Your task to perform on an android device: toggle notification dots Image 0: 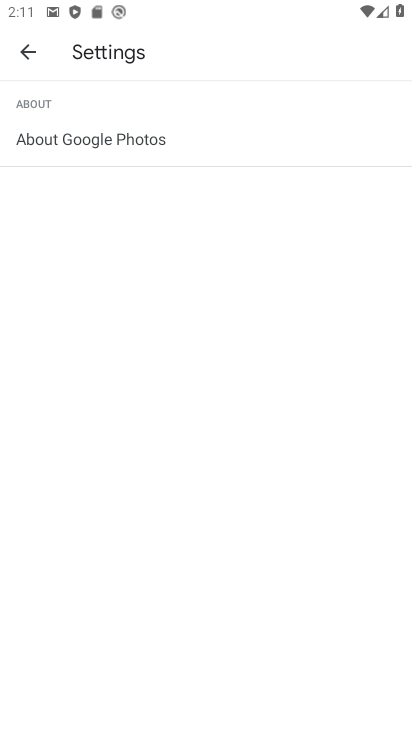
Step 0: press home button
Your task to perform on an android device: toggle notification dots Image 1: 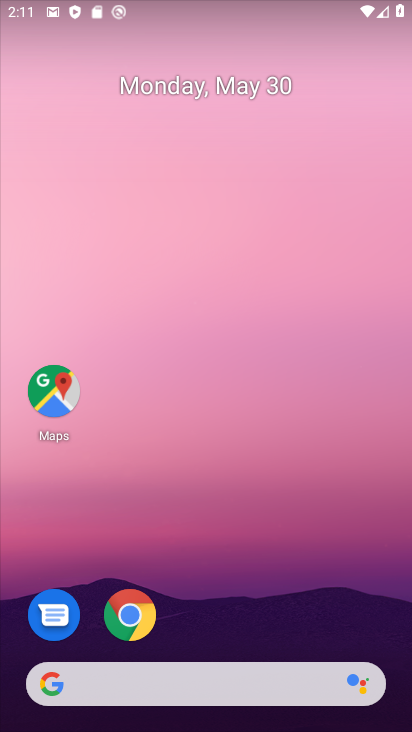
Step 1: drag from (254, 543) to (268, 1)
Your task to perform on an android device: toggle notification dots Image 2: 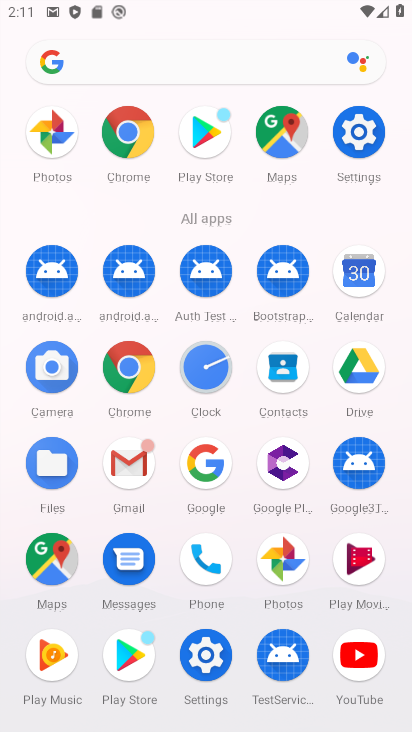
Step 2: click (353, 148)
Your task to perform on an android device: toggle notification dots Image 3: 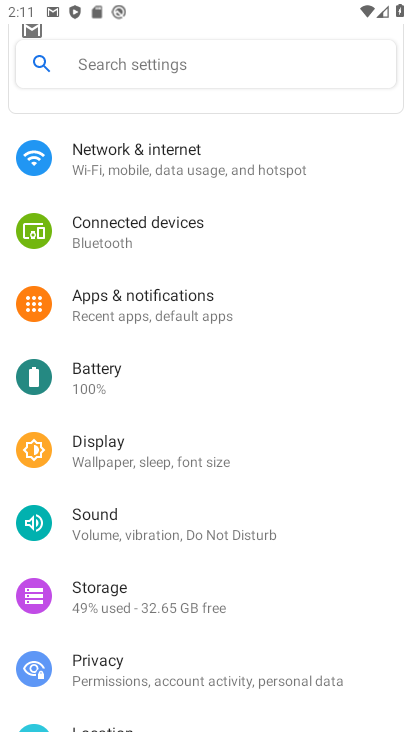
Step 3: click (201, 320)
Your task to perform on an android device: toggle notification dots Image 4: 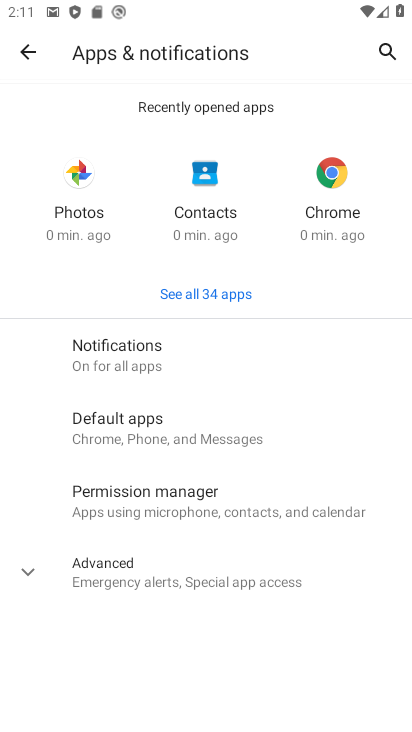
Step 4: click (232, 361)
Your task to perform on an android device: toggle notification dots Image 5: 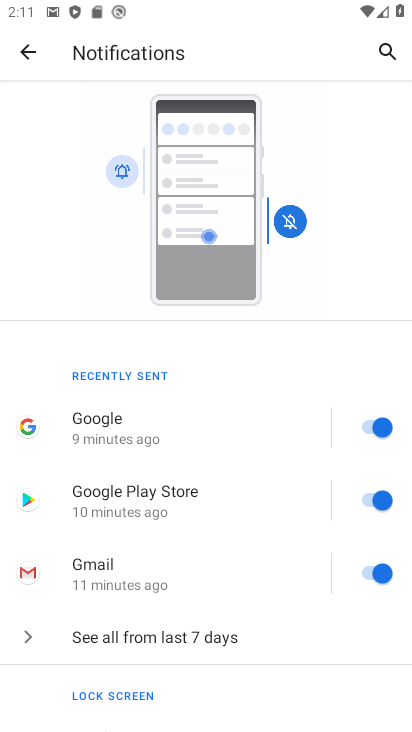
Step 5: drag from (242, 528) to (292, 200)
Your task to perform on an android device: toggle notification dots Image 6: 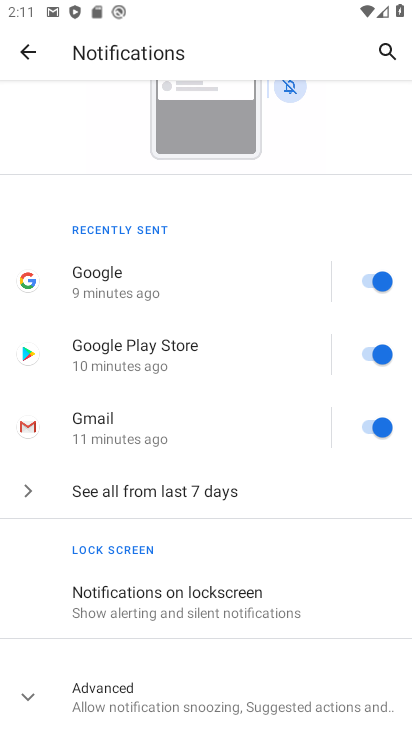
Step 6: click (22, 690)
Your task to perform on an android device: toggle notification dots Image 7: 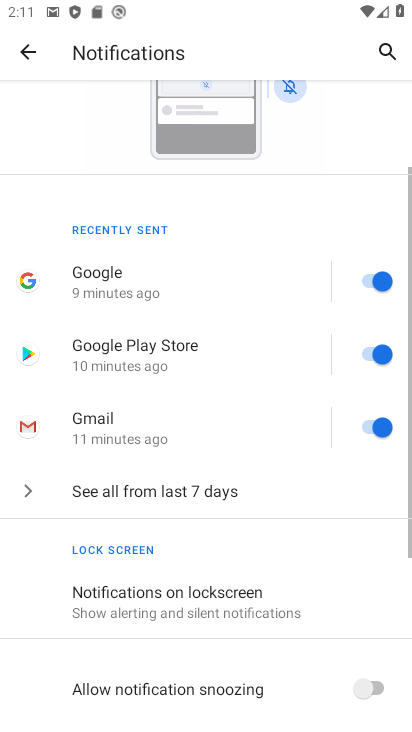
Step 7: drag from (260, 576) to (311, 139)
Your task to perform on an android device: toggle notification dots Image 8: 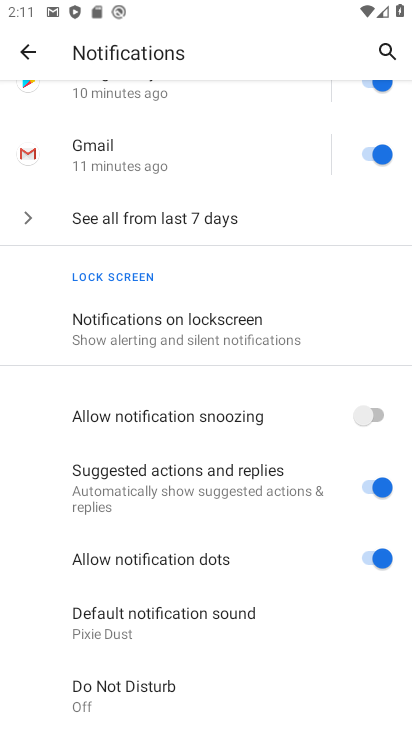
Step 8: click (367, 553)
Your task to perform on an android device: toggle notification dots Image 9: 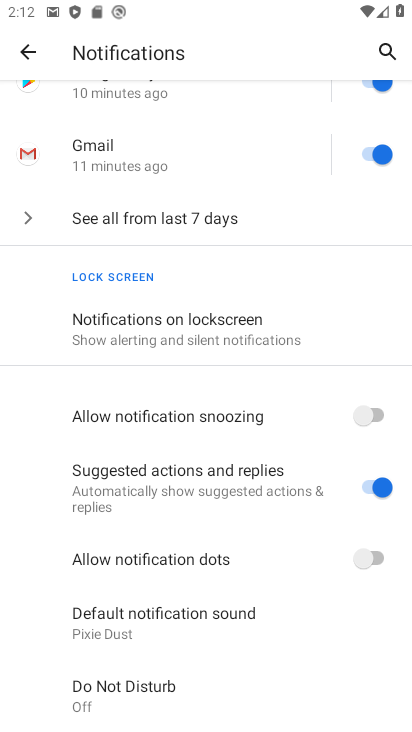
Step 9: task complete